Your task to perform on an android device: turn off notifications settings in the gmail app Image 0: 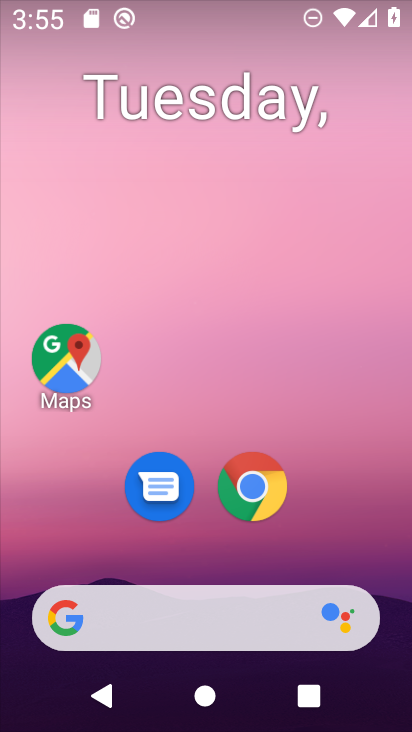
Step 0: drag from (185, 579) to (281, 1)
Your task to perform on an android device: turn off notifications settings in the gmail app Image 1: 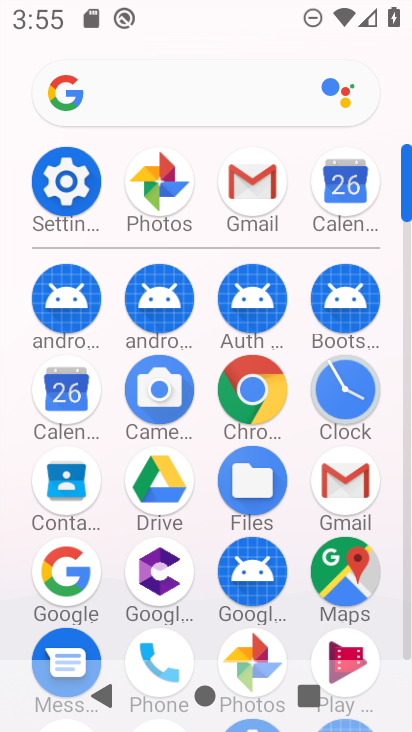
Step 1: click (245, 180)
Your task to perform on an android device: turn off notifications settings in the gmail app Image 2: 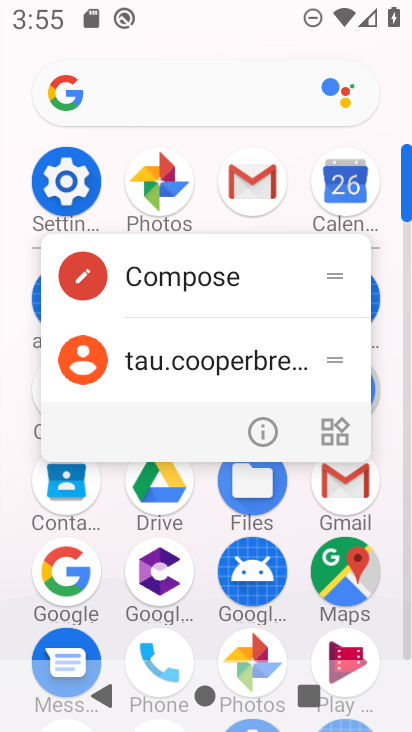
Step 2: click (267, 435)
Your task to perform on an android device: turn off notifications settings in the gmail app Image 3: 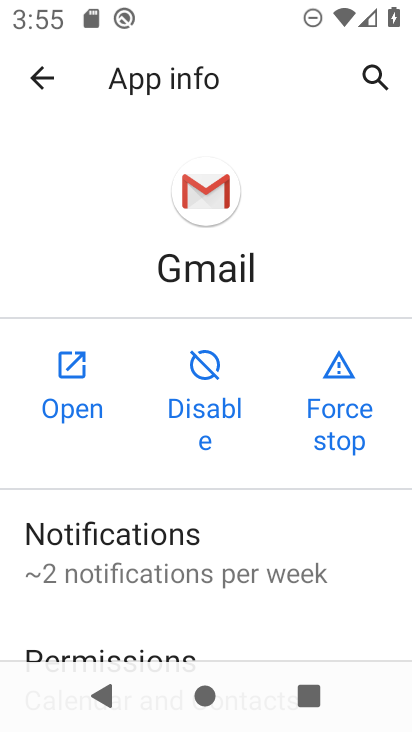
Step 3: click (126, 540)
Your task to perform on an android device: turn off notifications settings in the gmail app Image 4: 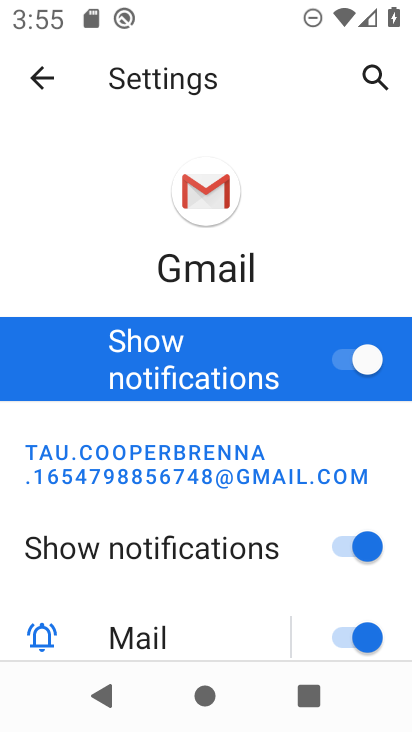
Step 4: click (362, 365)
Your task to perform on an android device: turn off notifications settings in the gmail app Image 5: 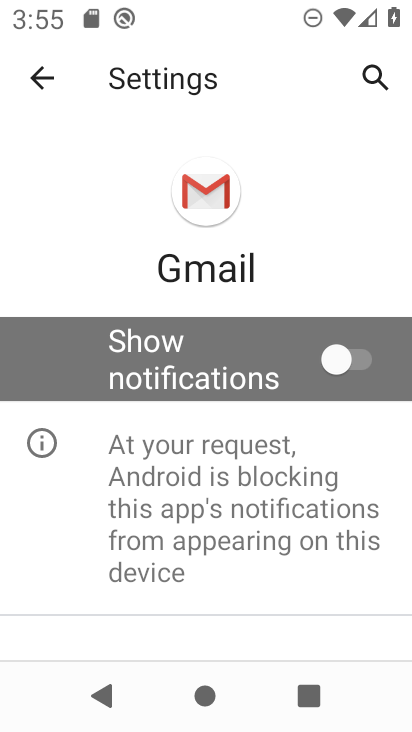
Step 5: task complete